Your task to perform on an android device: Google the capital of Canada Image 0: 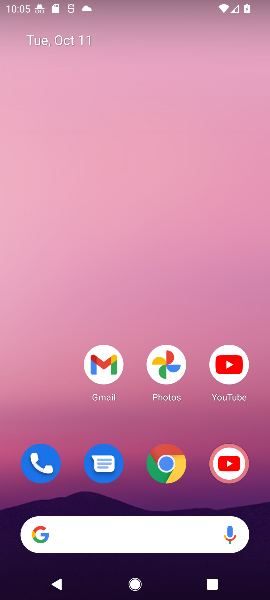
Step 0: drag from (147, 542) to (162, 305)
Your task to perform on an android device: Google the capital of Canada Image 1: 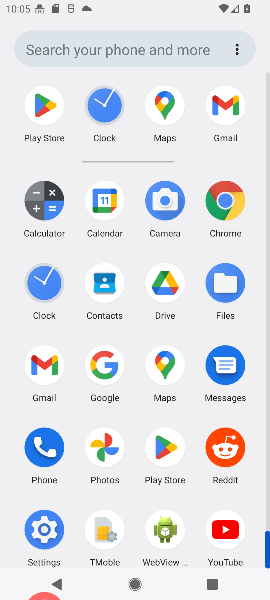
Step 1: click (115, 362)
Your task to perform on an android device: Google the capital of Canada Image 2: 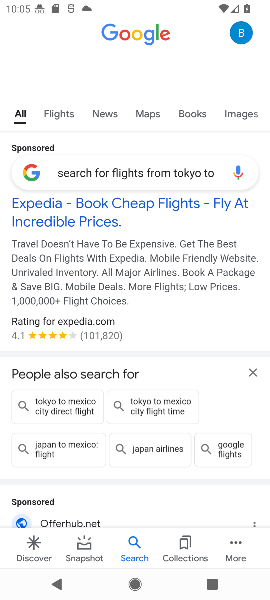
Step 2: click (137, 160)
Your task to perform on an android device: Google the capital of Canada Image 3: 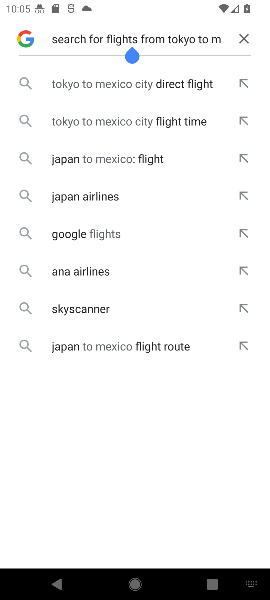
Step 3: click (239, 31)
Your task to perform on an android device: Google the capital of Canada Image 4: 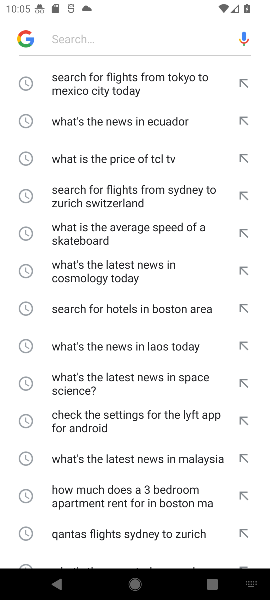
Step 4: click (104, 36)
Your task to perform on an android device: Google the capital of Canada Image 5: 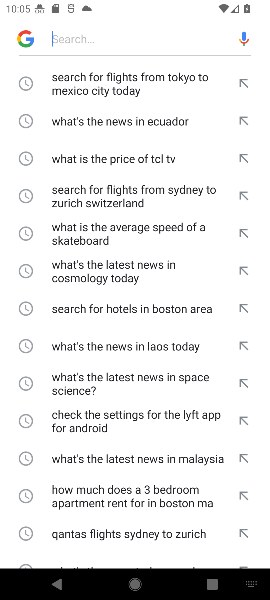
Step 5: type "Google the capital of Canada "
Your task to perform on an android device: Google the capital of Canada Image 6: 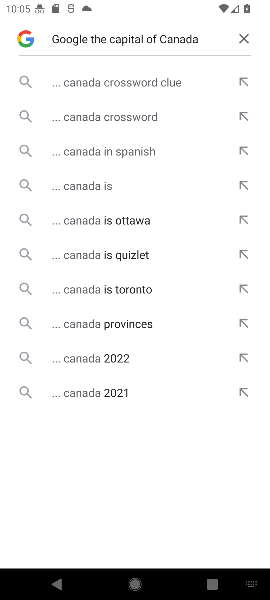
Step 6: click (100, 182)
Your task to perform on an android device: Google the capital of Canada Image 7: 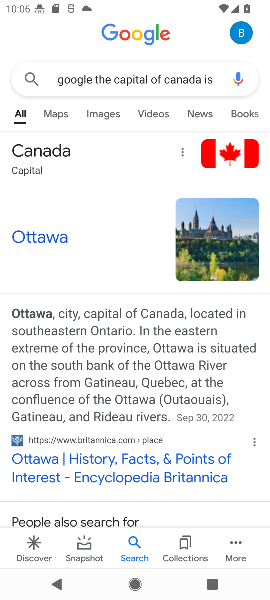
Step 7: drag from (124, 390) to (132, 221)
Your task to perform on an android device: Google the capital of Canada Image 8: 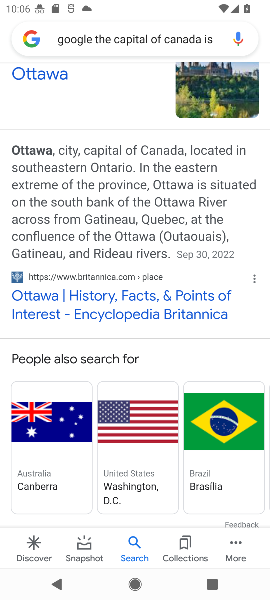
Step 8: click (83, 298)
Your task to perform on an android device: Google the capital of Canada Image 9: 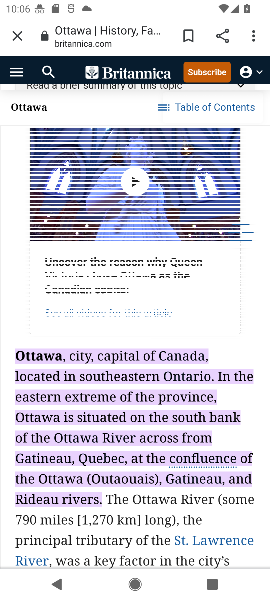
Step 9: task complete